Your task to perform on an android device: turn off location history Image 0: 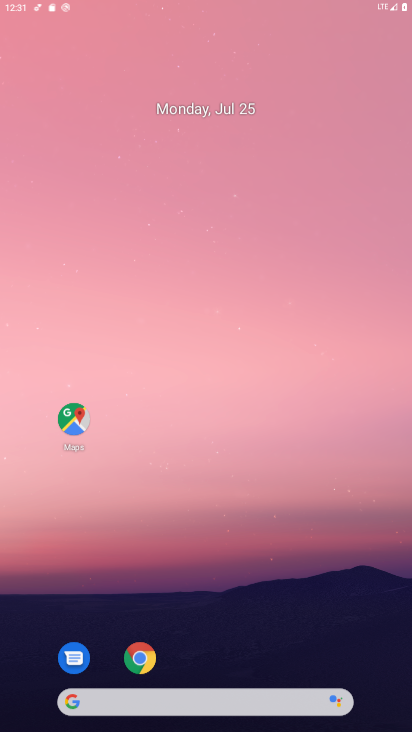
Step 0: press home button
Your task to perform on an android device: turn off location history Image 1: 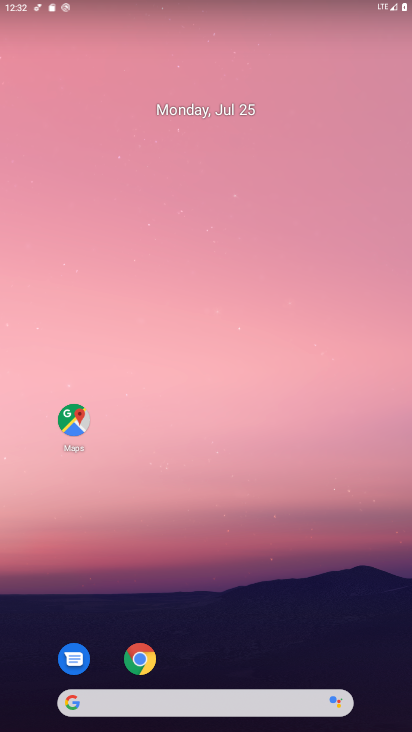
Step 1: drag from (205, 670) to (186, 33)
Your task to perform on an android device: turn off location history Image 2: 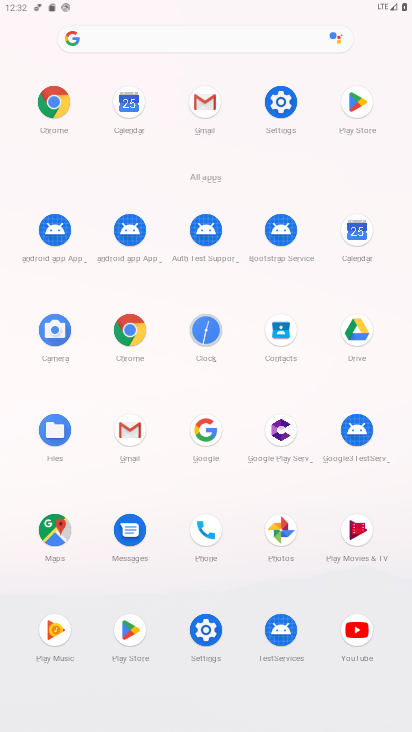
Step 2: click (281, 100)
Your task to perform on an android device: turn off location history Image 3: 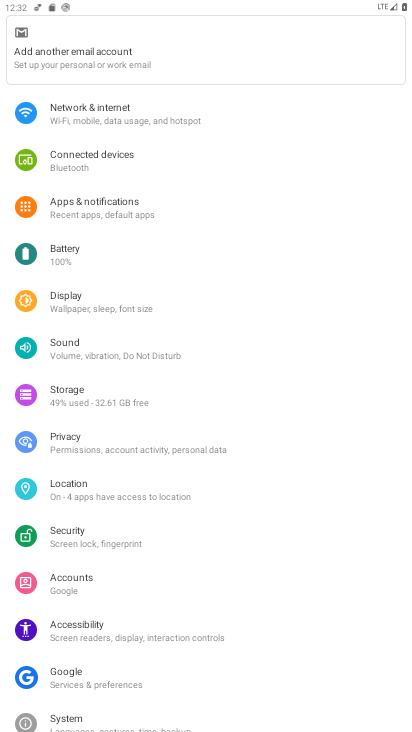
Step 3: drag from (100, 459) to (113, 644)
Your task to perform on an android device: turn off location history Image 4: 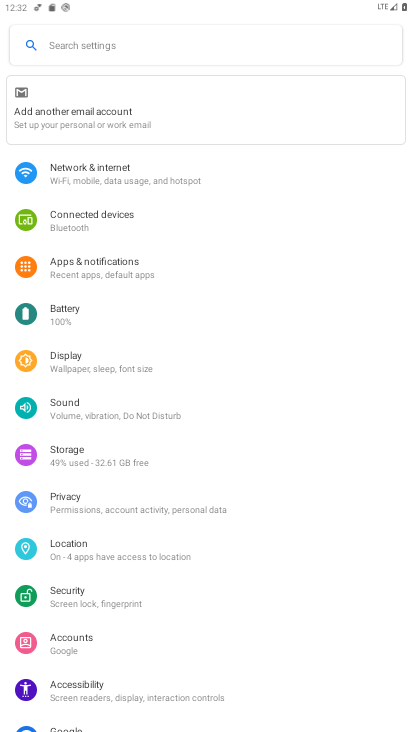
Step 4: click (96, 540)
Your task to perform on an android device: turn off location history Image 5: 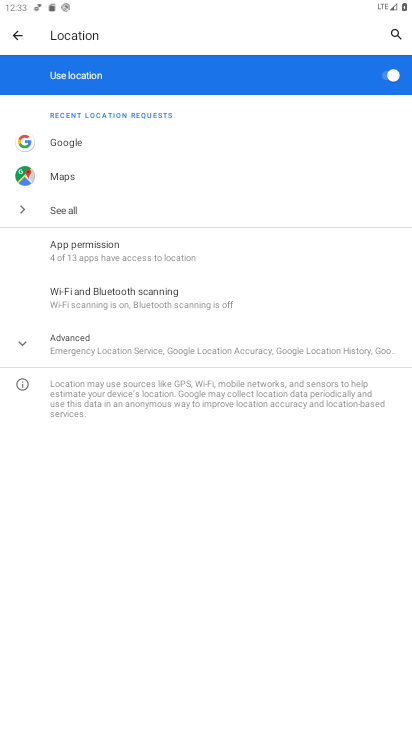
Step 5: click (7, 345)
Your task to perform on an android device: turn off location history Image 6: 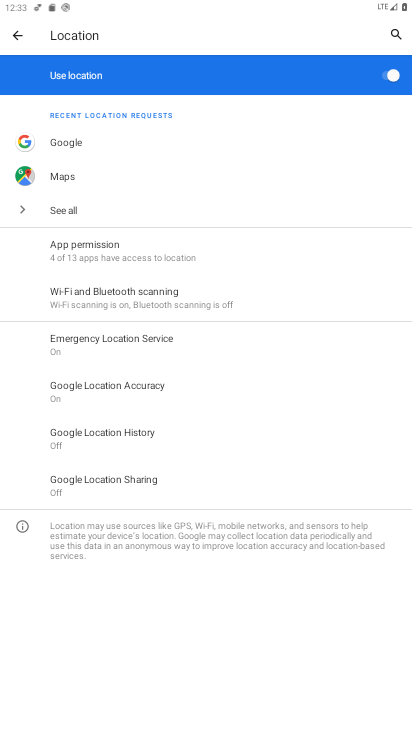
Step 6: click (89, 431)
Your task to perform on an android device: turn off location history Image 7: 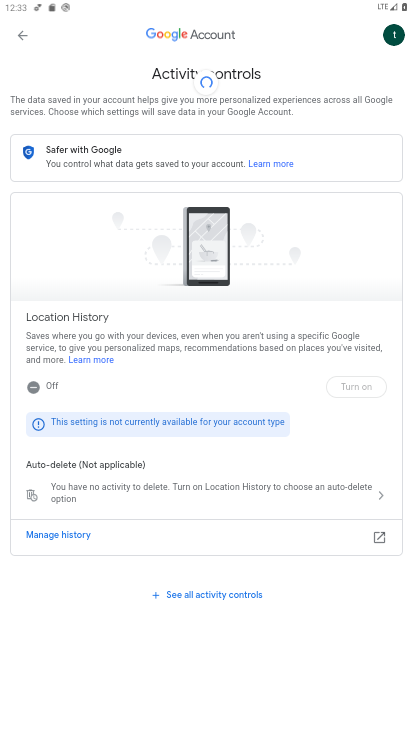
Step 7: task complete